Your task to perform on an android device: turn on wifi Image 0: 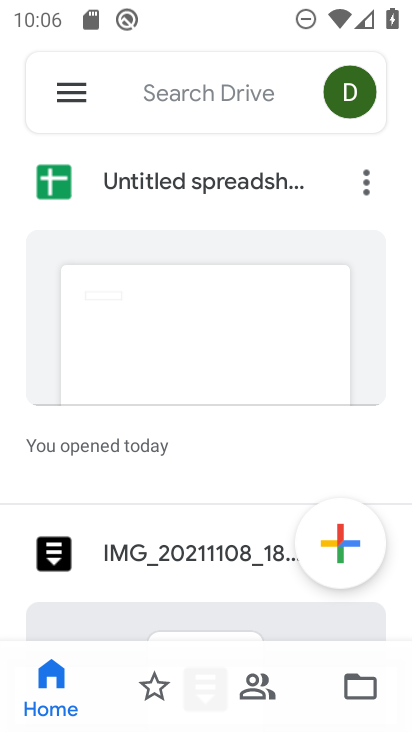
Step 0: press home button
Your task to perform on an android device: turn on wifi Image 1: 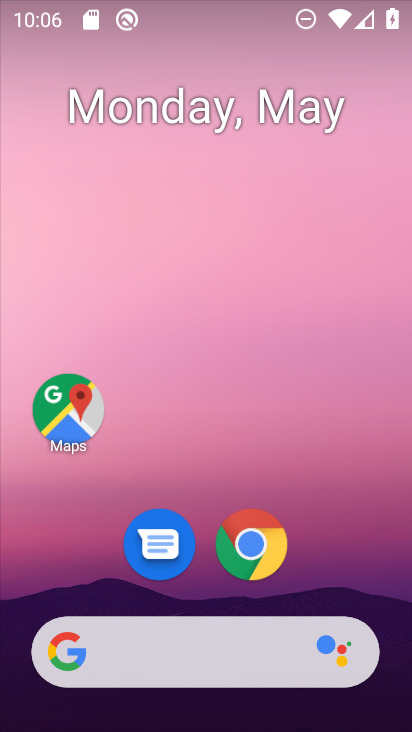
Step 1: drag from (312, 563) to (208, 270)
Your task to perform on an android device: turn on wifi Image 2: 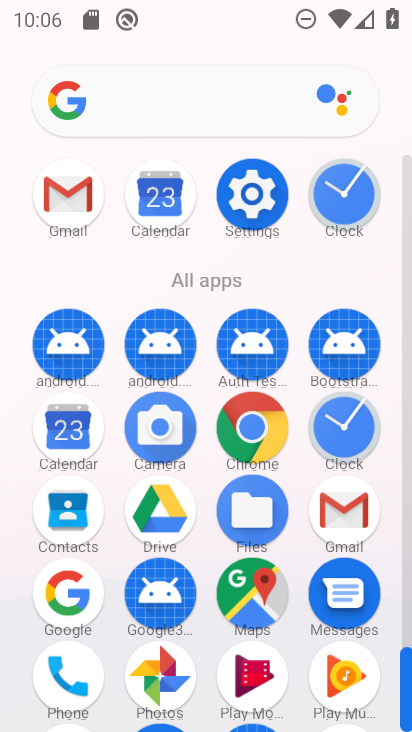
Step 2: click (233, 195)
Your task to perform on an android device: turn on wifi Image 3: 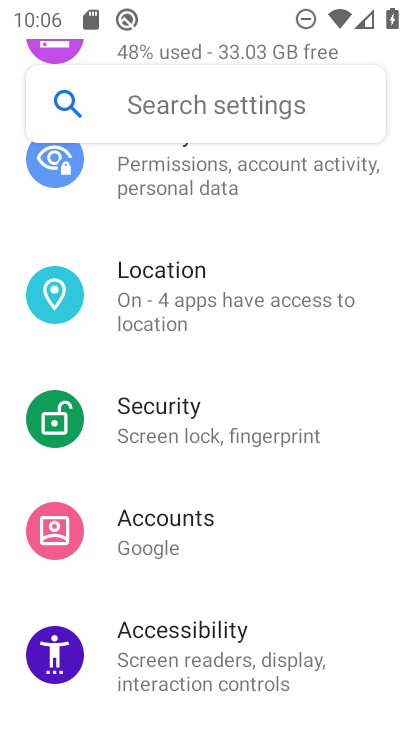
Step 3: drag from (233, 195) to (303, 710)
Your task to perform on an android device: turn on wifi Image 4: 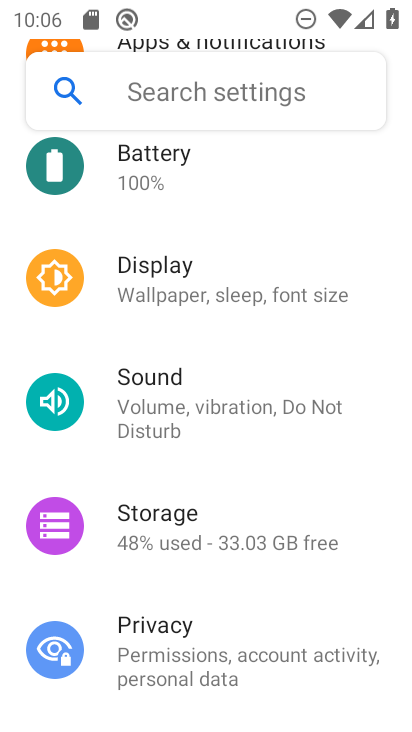
Step 4: drag from (266, 165) to (304, 420)
Your task to perform on an android device: turn on wifi Image 5: 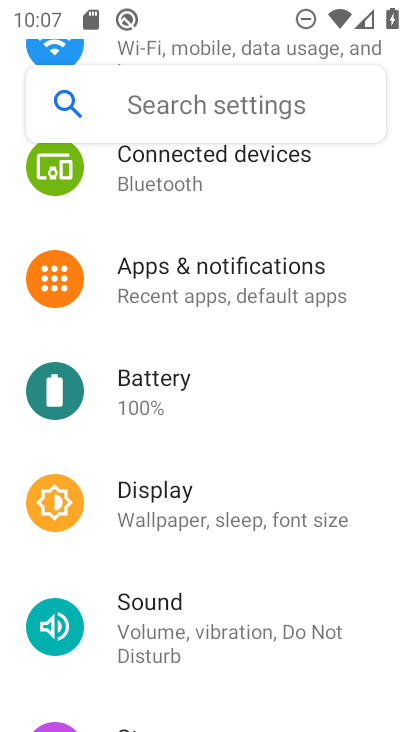
Step 5: drag from (212, 168) to (282, 369)
Your task to perform on an android device: turn on wifi Image 6: 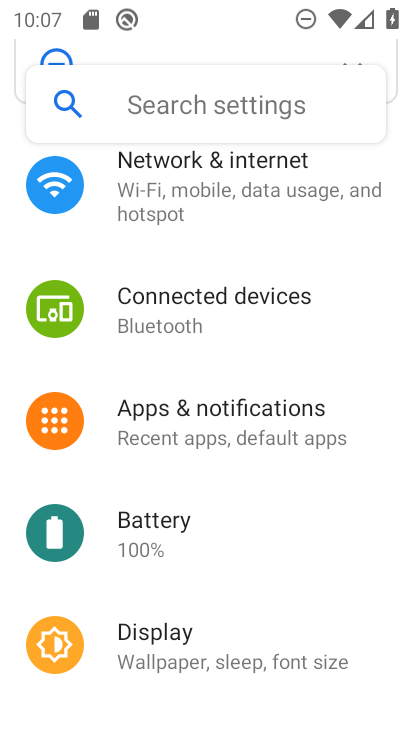
Step 6: click (201, 208)
Your task to perform on an android device: turn on wifi Image 7: 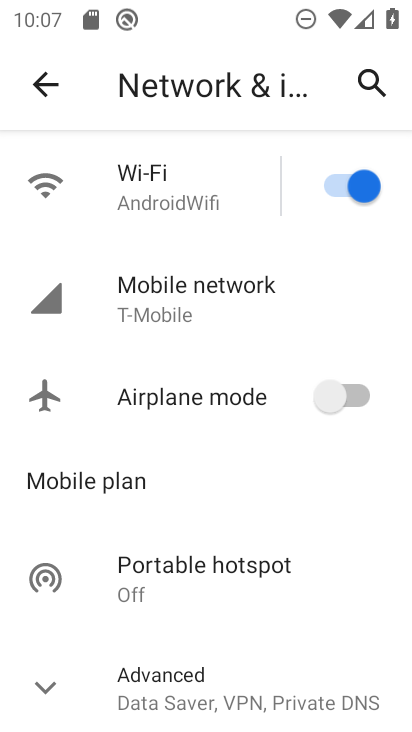
Step 7: task complete